Your task to perform on an android device: What's the weather going to be this weekend? Image 0: 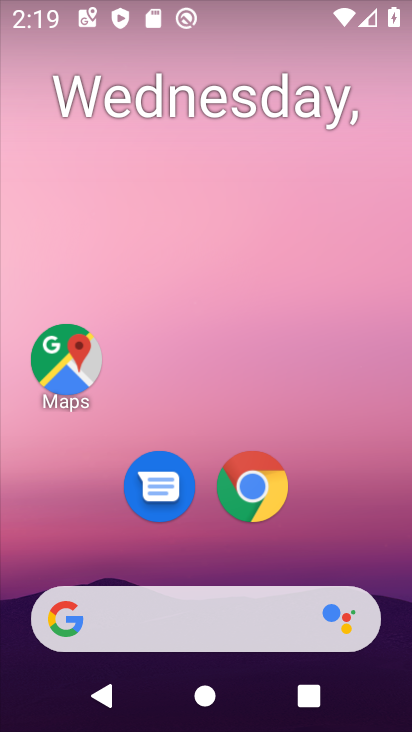
Step 0: click (262, 504)
Your task to perform on an android device: What's the weather going to be this weekend? Image 1: 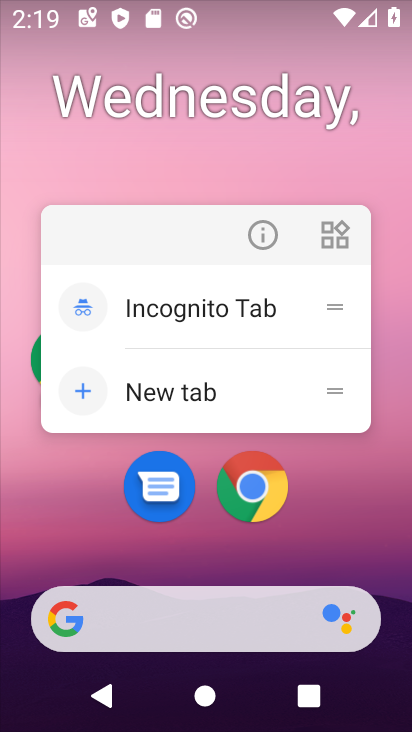
Step 1: click (249, 492)
Your task to perform on an android device: What's the weather going to be this weekend? Image 2: 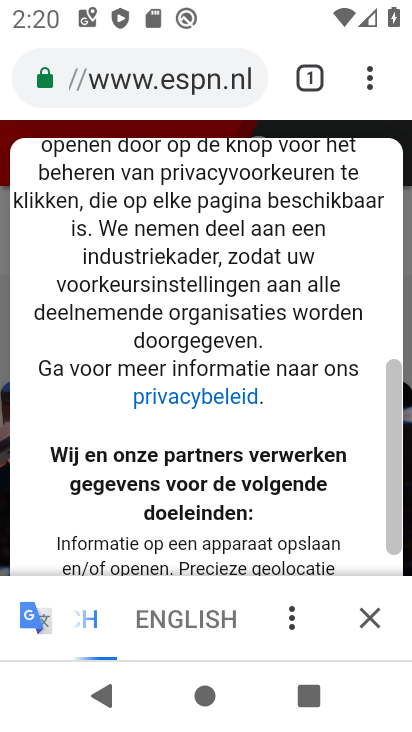
Step 2: click (182, 73)
Your task to perform on an android device: What's the weather going to be this weekend? Image 3: 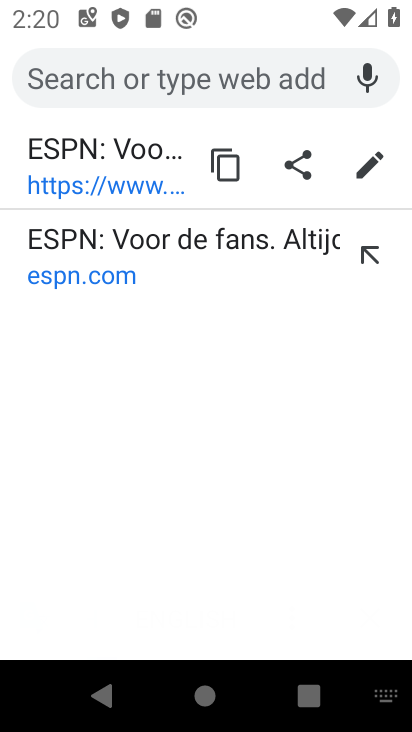
Step 3: type "whats the weather going to be this weekend"
Your task to perform on an android device: What's the weather going to be this weekend? Image 4: 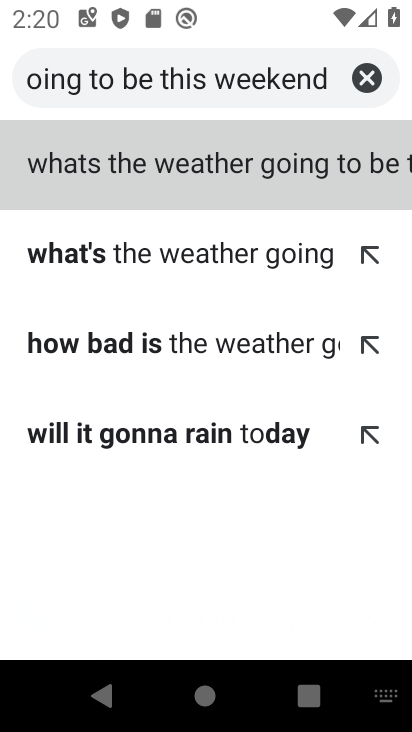
Step 4: click (291, 197)
Your task to perform on an android device: What's the weather going to be this weekend? Image 5: 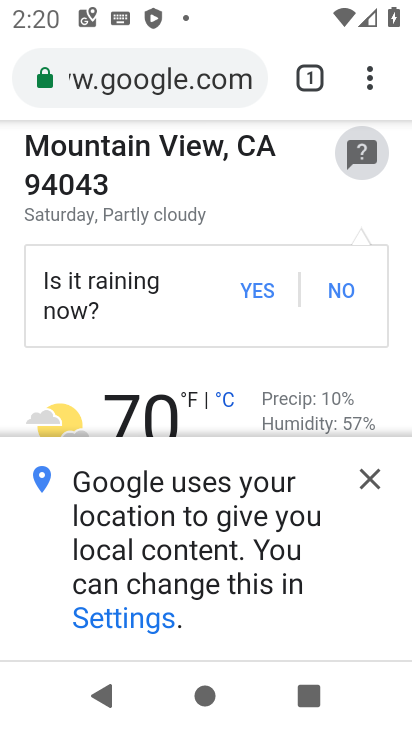
Step 5: task complete